Your task to perform on an android device: What's on my calendar tomorrow? Image 0: 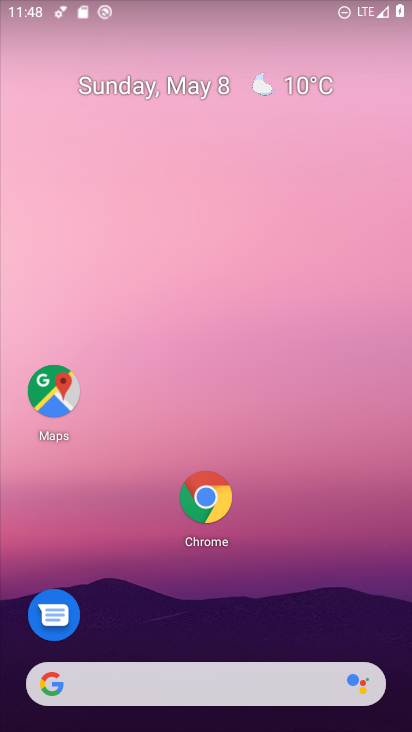
Step 0: drag from (295, 567) to (232, 77)
Your task to perform on an android device: What's on my calendar tomorrow? Image 1: 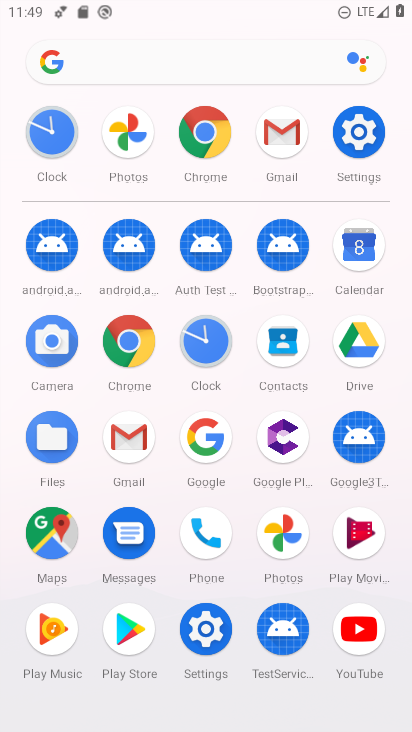
Step 1: click (364, 265)
Your task to perform on an android device: What's on my calendar tomorrow? Image 2: 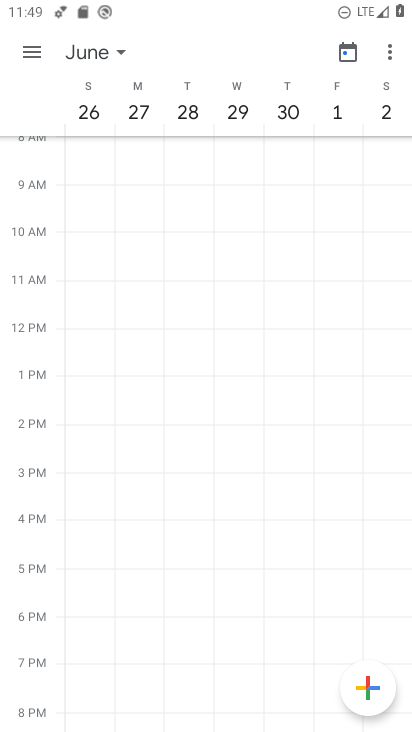
Step 2: click (86, 52)
Your task to perform on an android device: What's on my calendar tomorrow? Image 3: 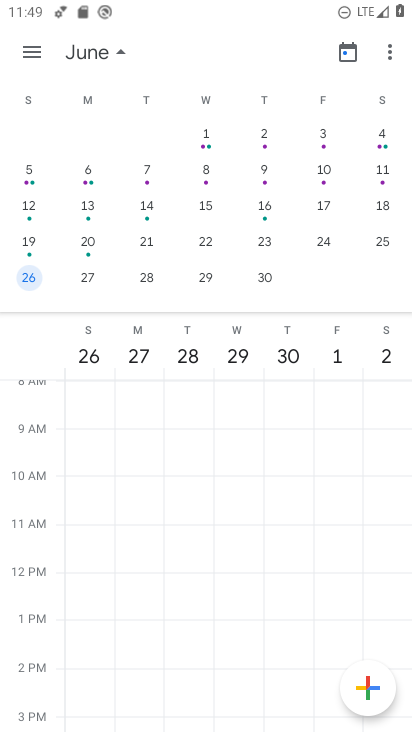
Step 3: drag from (73, 175) to (397, 208)
Your task to perform on an android device: What's on my calendar tomorrow? Image 4: 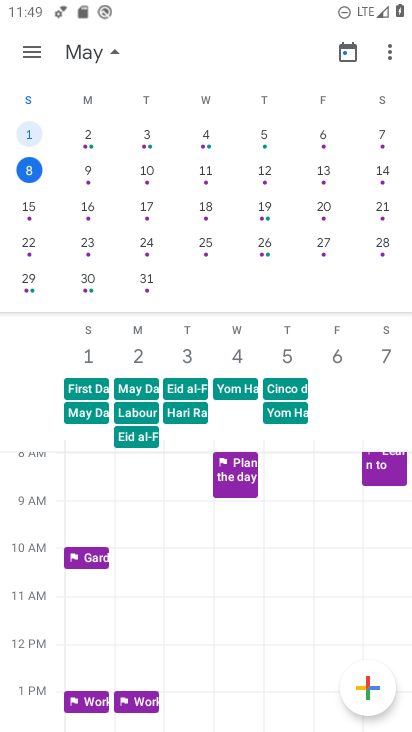
Step 4: click (38, 177)
Your task to perform on an android device: What's on my calendar tomorrow? Image 5: 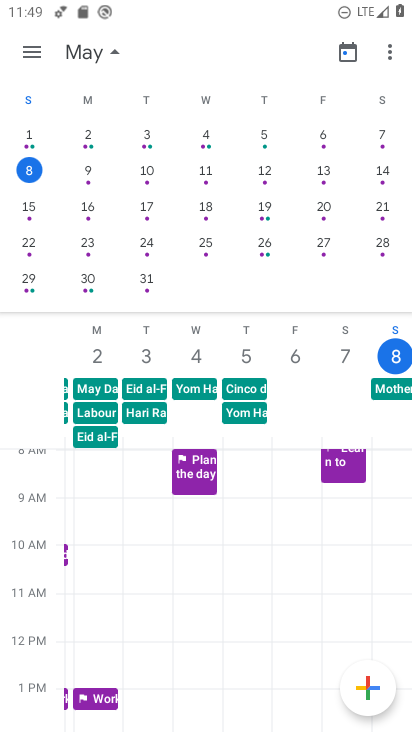
Step 5: click (29, 171)
Your task to perform on an android device: What's on my calendar tomorrow? Image 6: 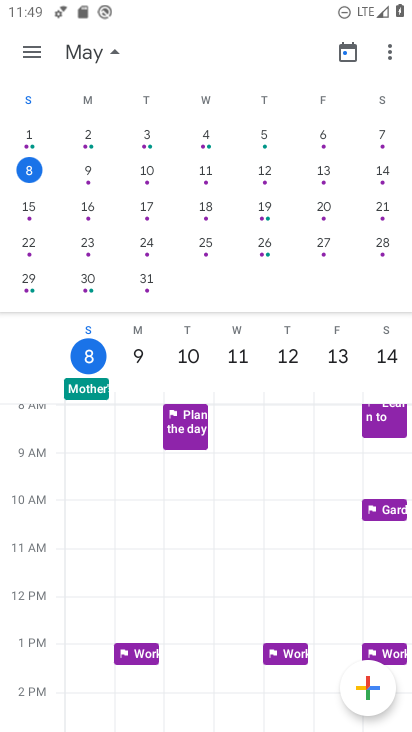
Step 6: click (90, 170)
Your task to perform on an android device: What's on my calendar tomorrow? Image 7: 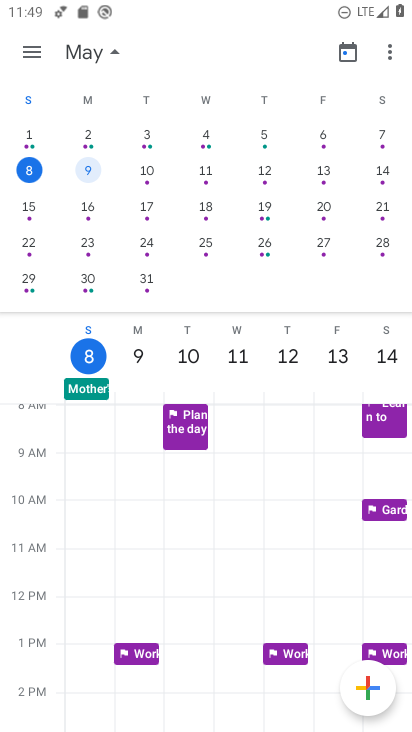
Step 7: click (143, 351)
Your task to perform on an android device: What's on my calendar tomorrow? Image 8: 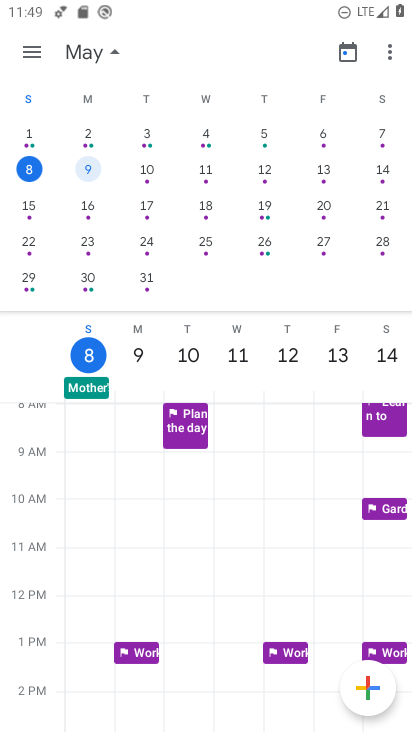
Step 8: click (137, 349)
Your task to perform on an android device: What's on my calendar tomorrow? Image 9: 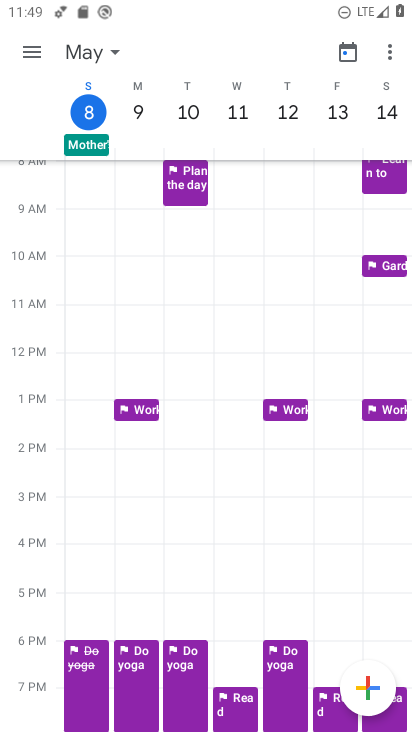
Step 9: click (149, 108)
Your task to perform on an android device: What's on my calendar tomorrow? Image 10: 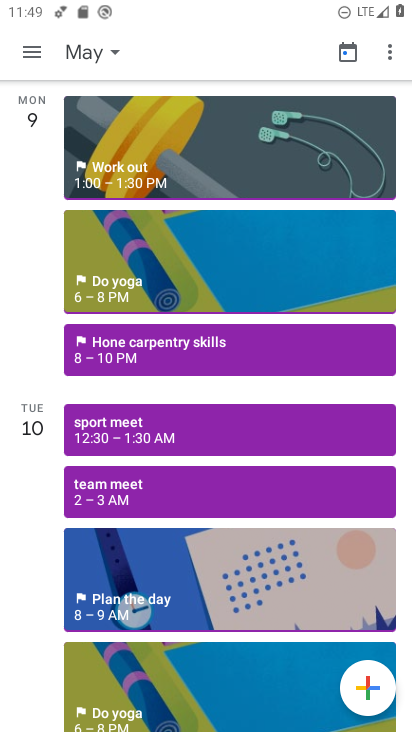
Step 10: task complete